Your task to perform on an android device: open sync settings in chrome Image 0: 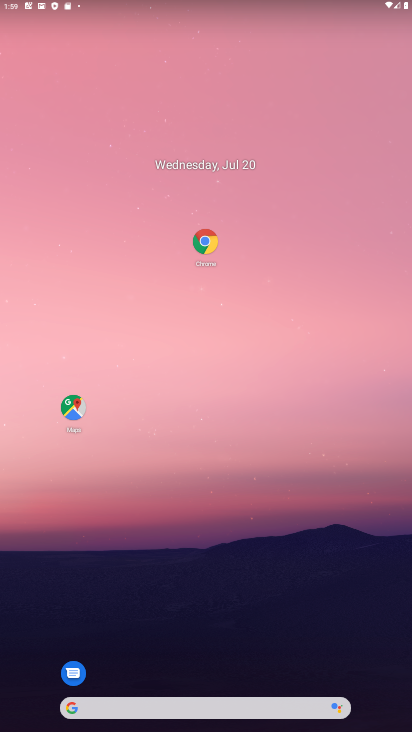
Step 0: drag from (175, 670) to (236, 99)
Your task to perform on an android device: open sync settings in chrome Image 1: 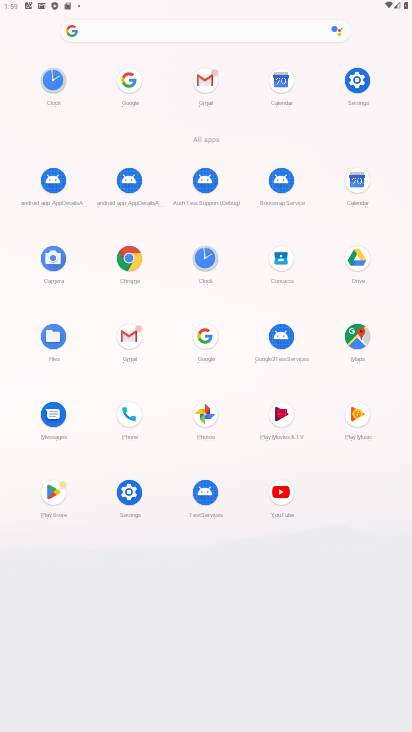
Step 1: click (129, 257)
Your task to perform on an android device: open sync settings in chrome Image 2: 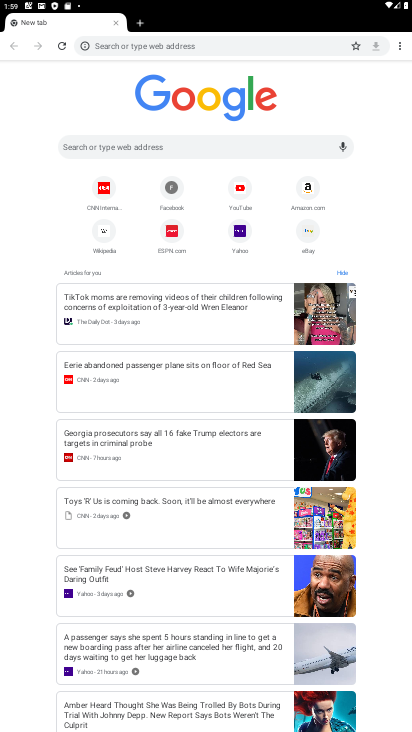
Step 2: click (397, 46)
Your task to perform on an android device: open sync settings in chrome Image 3: 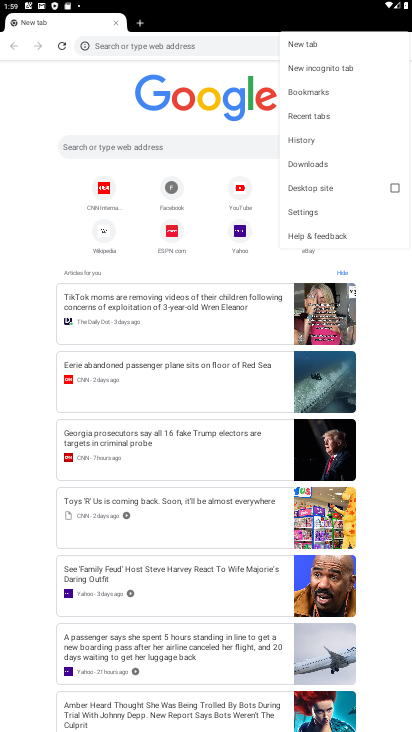
Step 3: click (295, 200)
Your task to perform on an android device: open sync settings in chrome Image 4: 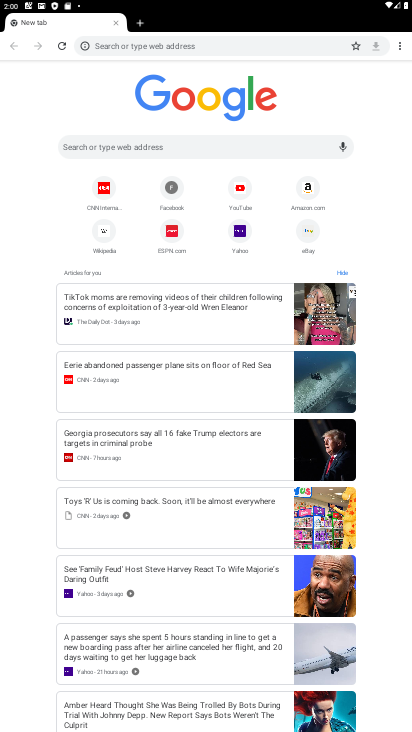
Step 4: click (398, 45)
Your task to perform on an android device: open sync settings in chrome Image 5: 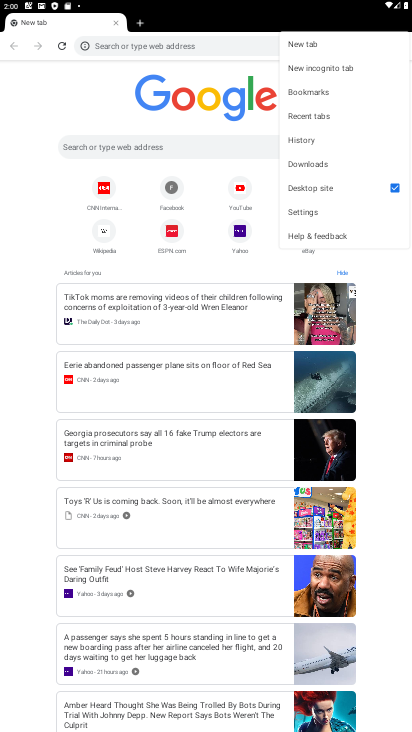
Step 5: click (309, 211)
Your task to perform on an android device: open sync settings in chrome Image 6: 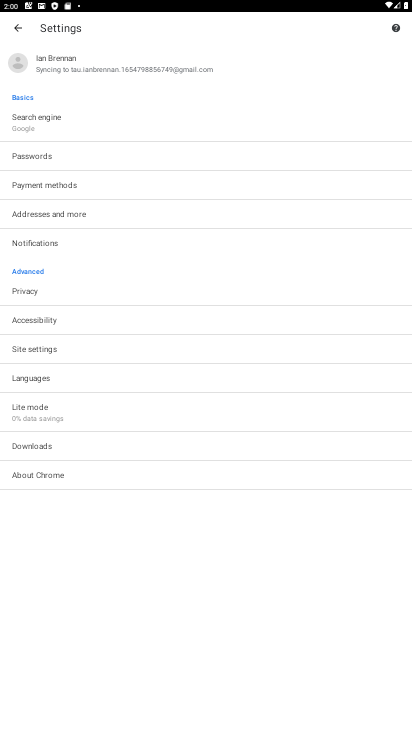
Step 6: click (53, 353)
Your task to perform on an android device: open sync settings in chrome Image 7: 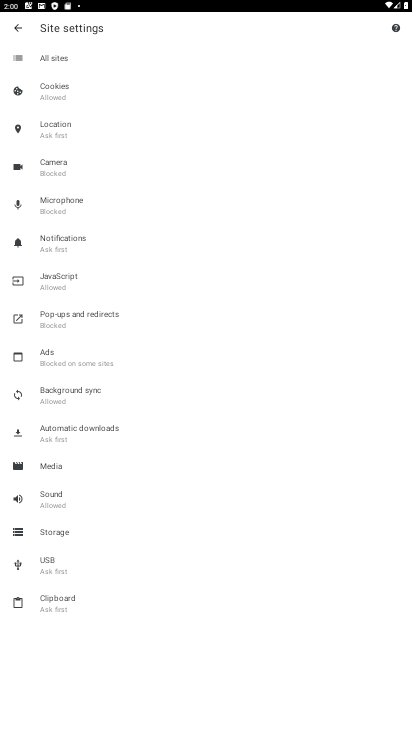
Step 7: click (74, 394)
Your task to perform on an android device: open sync settings in chrome Image 8: 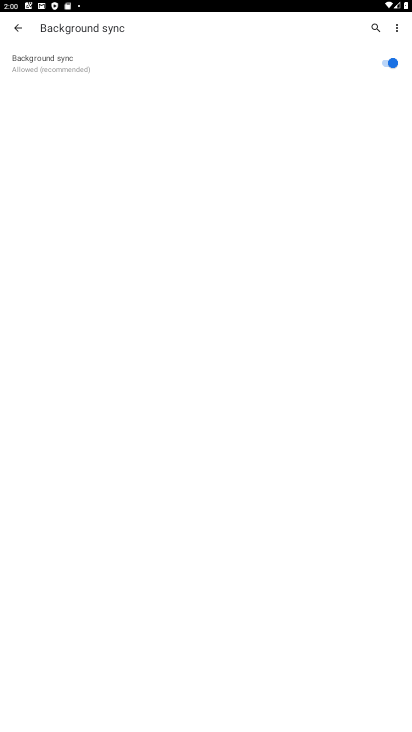
Step 8: task complete